Your task to perform on an android device: stop showing notifications on the lock screen Image 0: 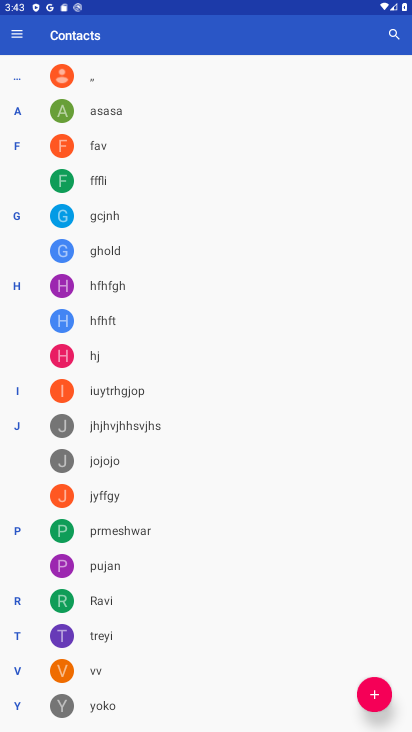
Step 0: press home button
Your task to perform on an android device: stop showing notifications on the lock screen Image 1: 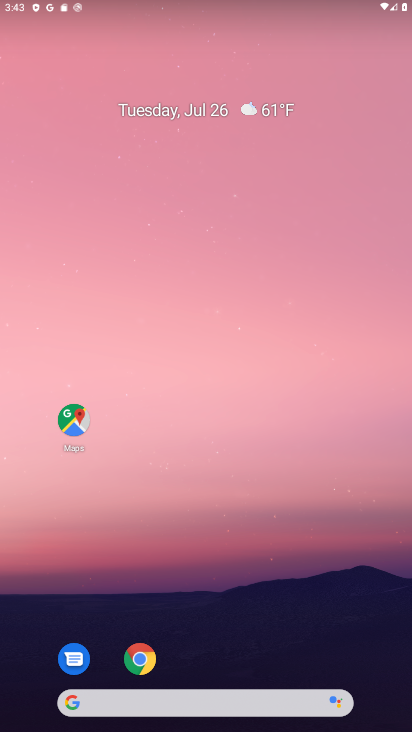
Step 1: drag from (270, 505) to (152, 2)
Your task to perform on an android device: stop showing notifications on the lock screen Image 2: 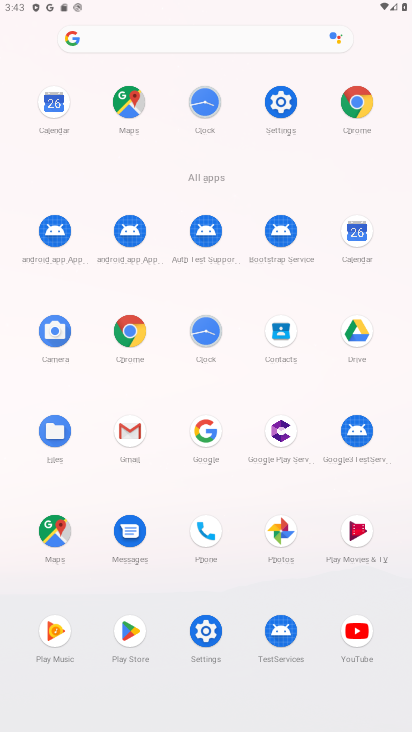
Step 2: click (273, 99)
Your task to perform on an android device: stop showing notifications on the lock screen Image 3: 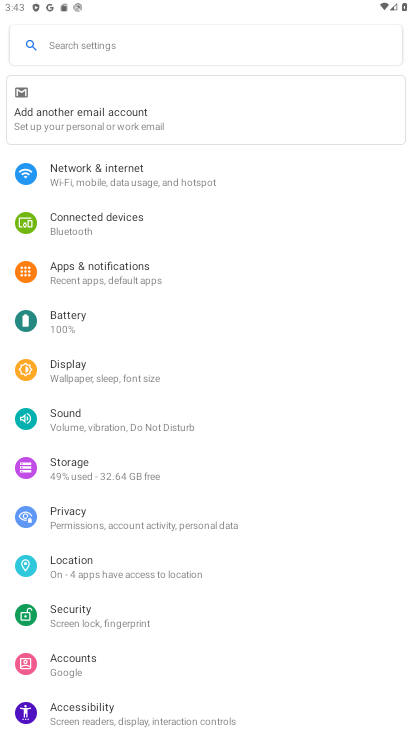
Step 3: click (100, 277)
Your task to perform on an android device: stop showing notifications on the lock screen Image 4: 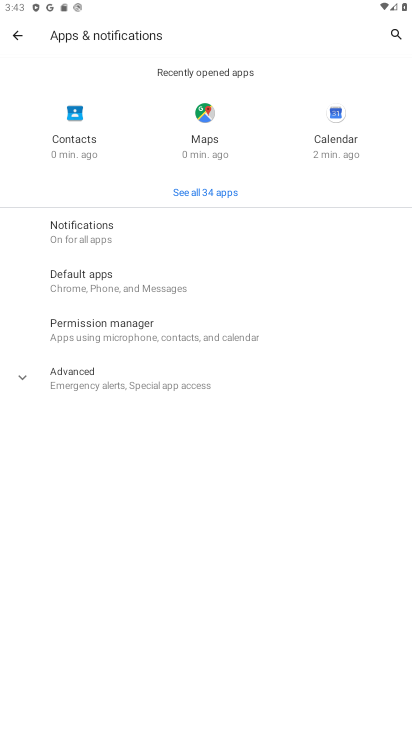
Step 4: click (127, 240)
Your task to perform on an android device: stop showing notifications on the lock screen Image 5: 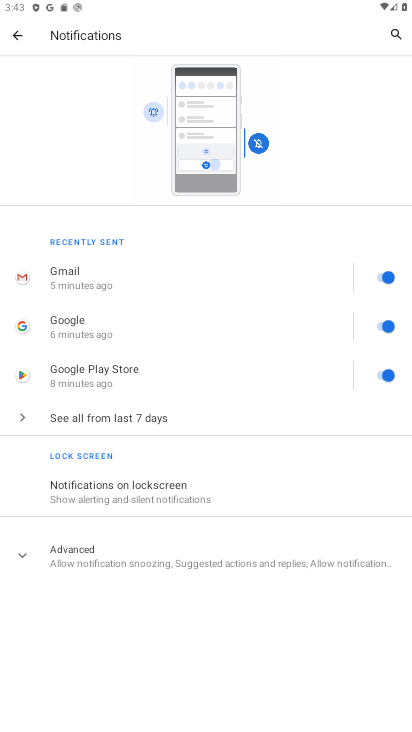
Step 5: click (168, 496)
Your task to perform on an android device: stop showing notifications on the lock screen Image 6: 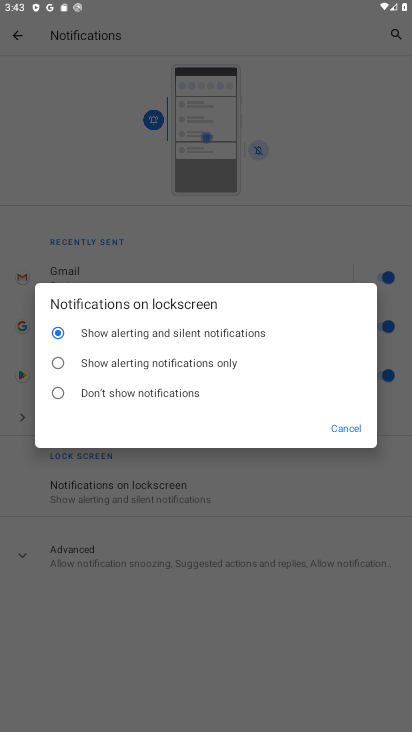
Step 6: click (173, 388)
Your task to perform on an android device: stop showing notifications on the lock screen Image 7: 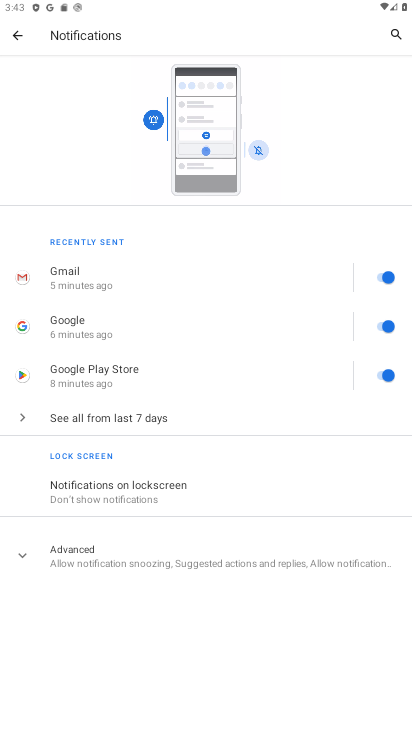
Step 7: task complete